Your task to perform on an android device: change keyboard looks Image 0: 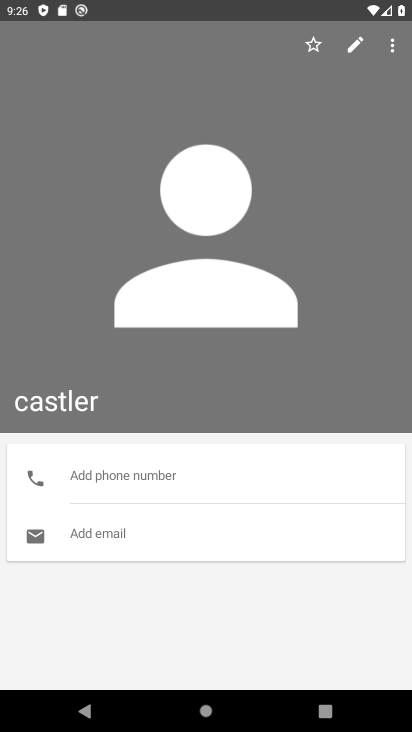
Step 0: press home button
Your task to perform on an android device: change keyboard looks Image 1: 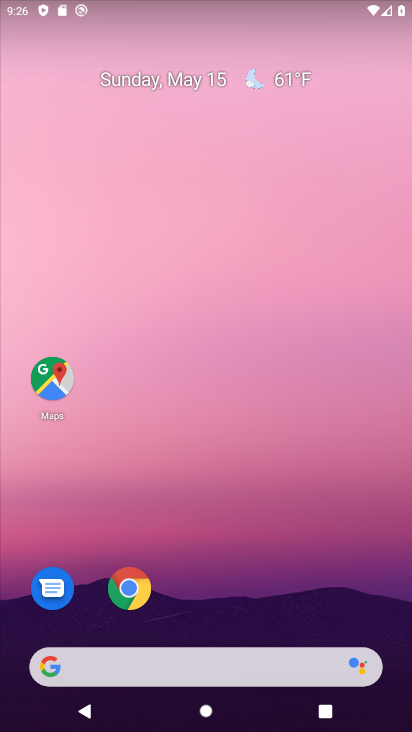
Step 1: drag from (242, 621) to (325, 0)
Your task to perform on an android device: change keyboard looks Image 2: 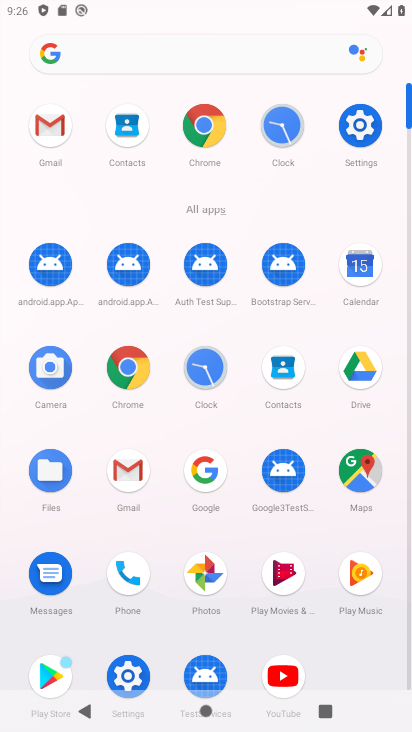
Step 2: click (131, 667)
Your task to perform on an android device: change keyboard looks Image 3: 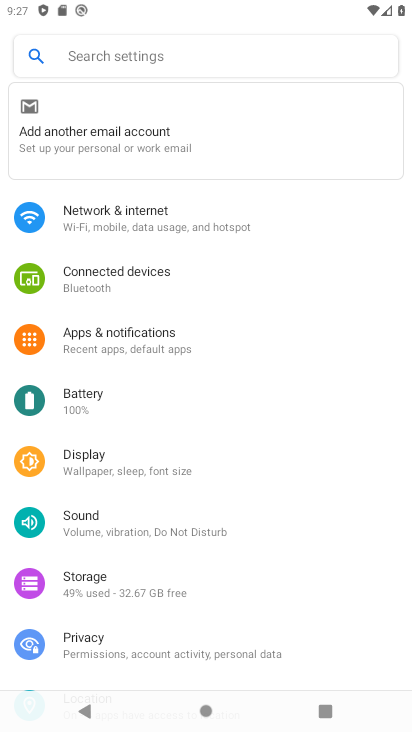
Step 3: drag from (141, 569) to (208, 141)
Your task to perform on an android device: change keyboard looks Image 4: 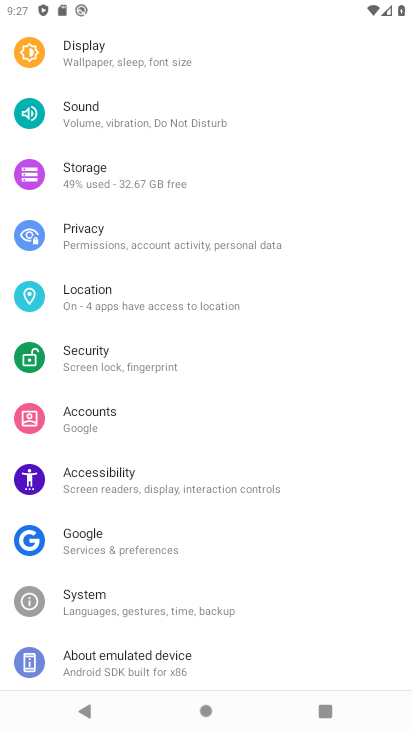
Step 4: drag from (101, 546) to (150, 271)
Your task to perform on an android device: change keyboard looks Image 5: 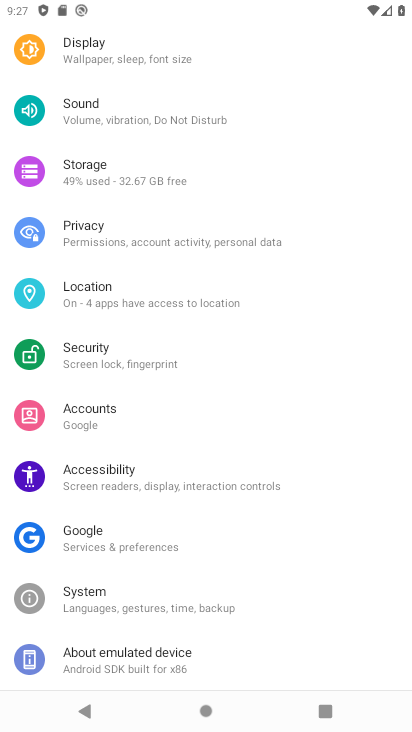
Step 5: click (93, 600)
Your task to perform on an android device: change keyboard looks Image 6: 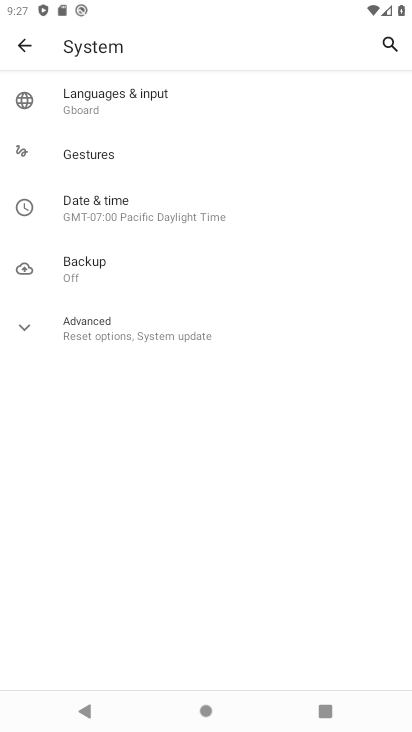
Step 6: click (150, 113)
Your task to perform on an android device: change keyboard looks Image 7: 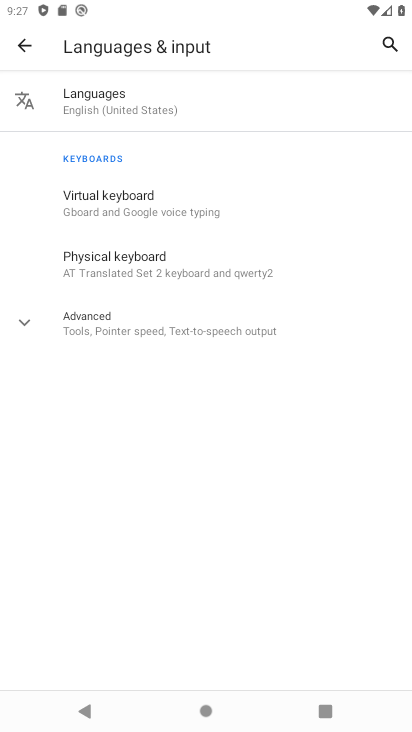
Step 7: click (144, 205)
Your task to perform on an android device: change keyboard looks Image 8: 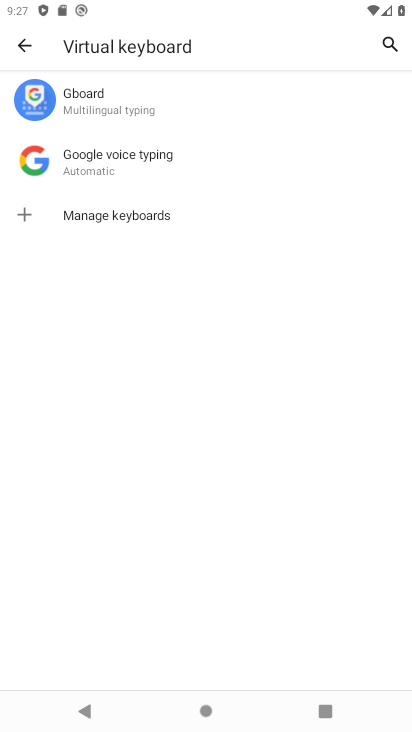
Step 8: click (95, 102)
Your task to perform on an android device: change keyboard looks Image 9: 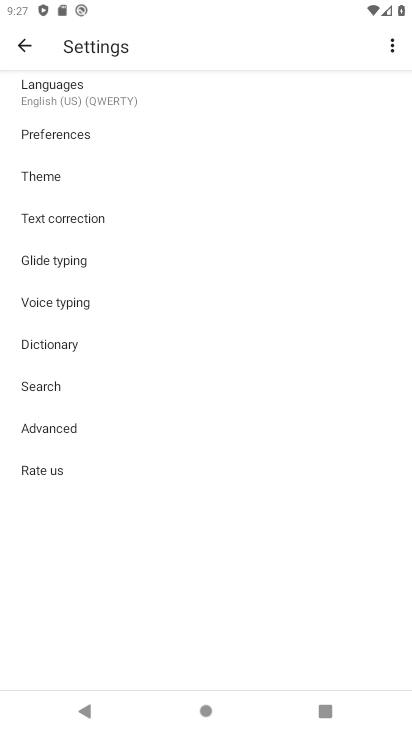
Step 9: click (58, 181)
Your task to perform on an android device: change keyboard looks Image 10: 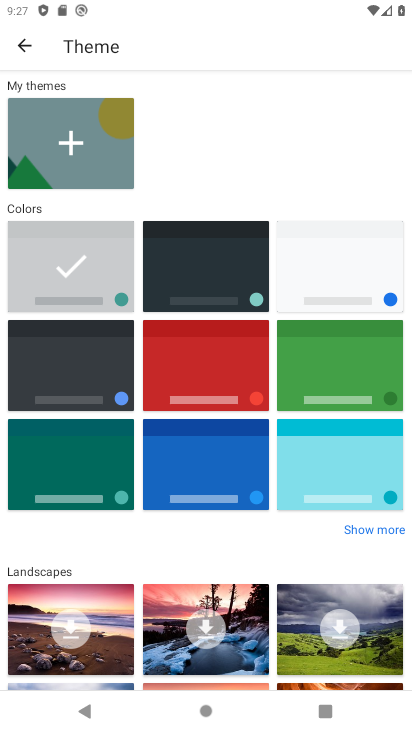
Step 10: click (93, 381)
Your task to perform on an android device: change keyboard looks Image 11: 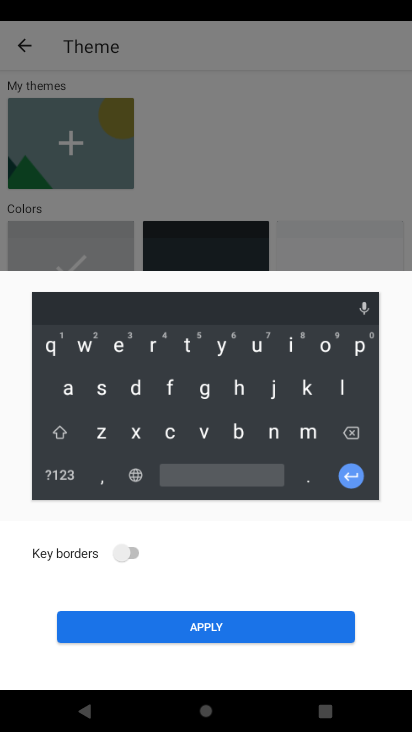
Step 11: click (232, 634)
Your task to perform on an android device: change keyboard looks Image 12: 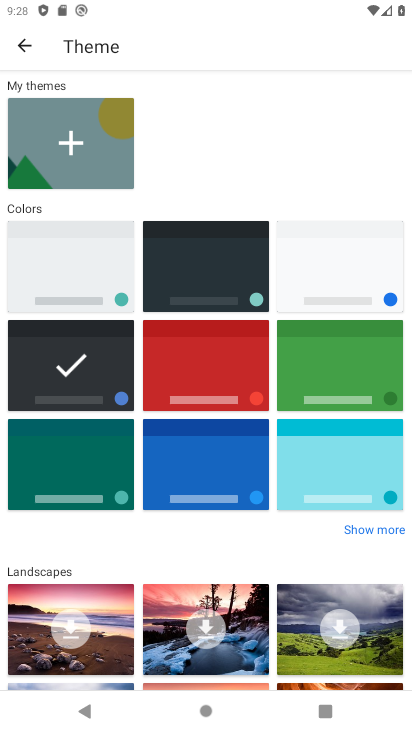
Step 12: task complete